Your task to perform on an android device: set the stopwatch Image 0: 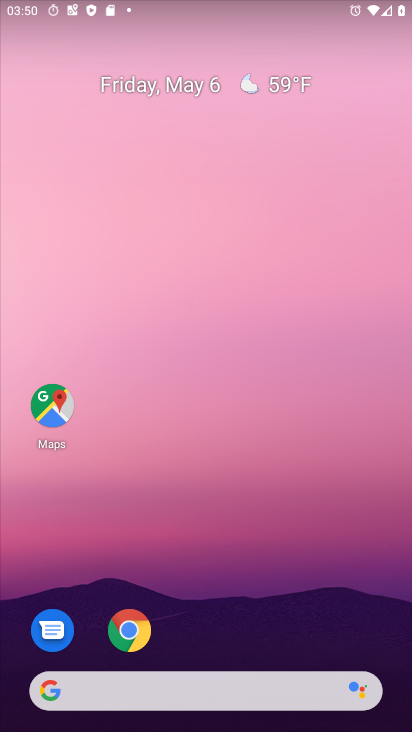
Step 0: drag from (230, 621) to (240, 172)
Your task to perform on an android device: set the stopwatch Image 1: 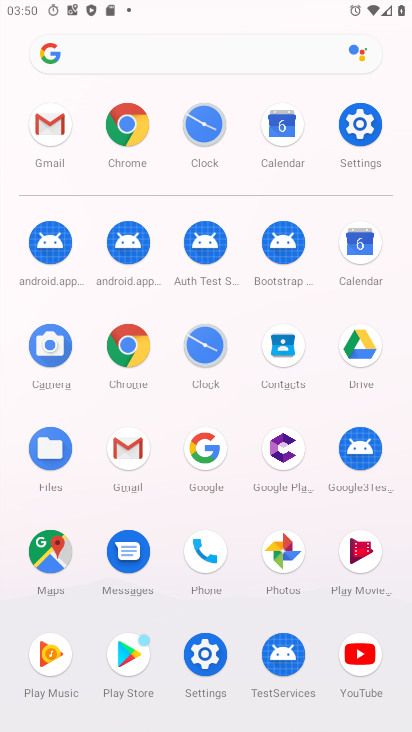
Step 1: click (186, 114)
Your task to perform on an android device: set the stopwatch Image 2: 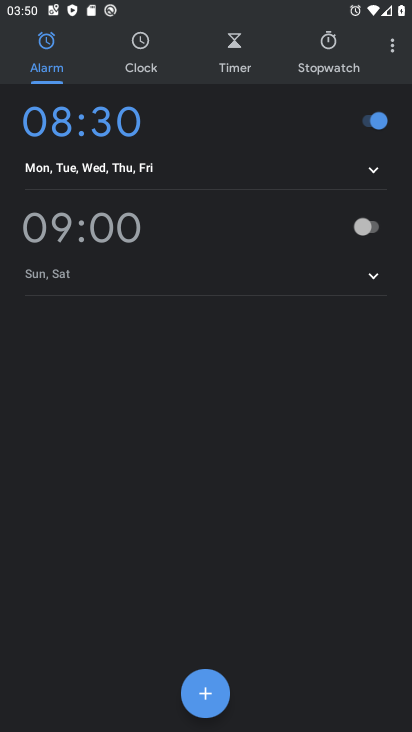
Step 2: click (344, 50)
Your task to perform on an android device: set the stopwatch Image 3: 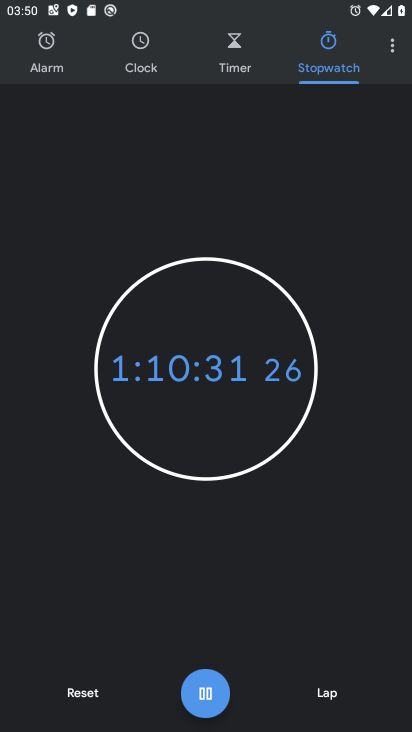
Step 3: click (205, 685)
Your task to perform on an android device: set the stopwatch Image 4: 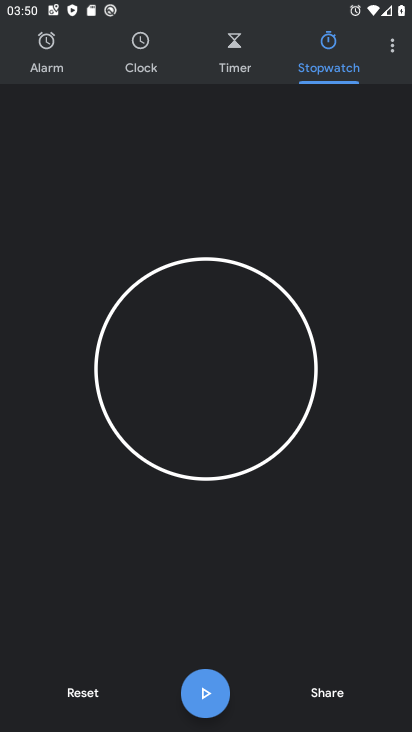
Step 4: task complete